Your task to perform on an android device: change the clock display to analog Image 0: 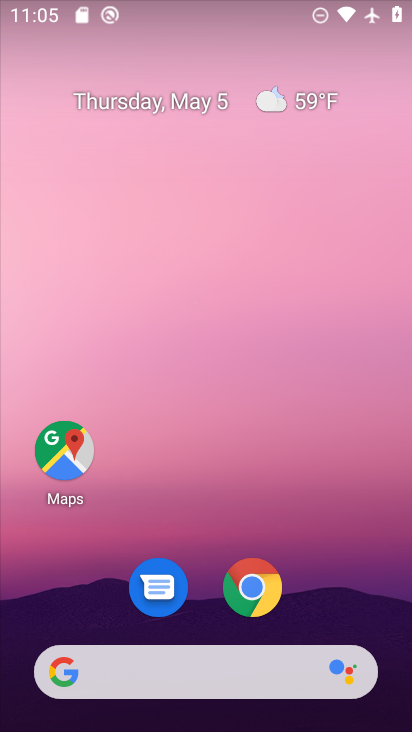
Step 0: drag from (349, 593) to (226, 3)
Your task to perform on an android device: change the clock display to analog Image 1: 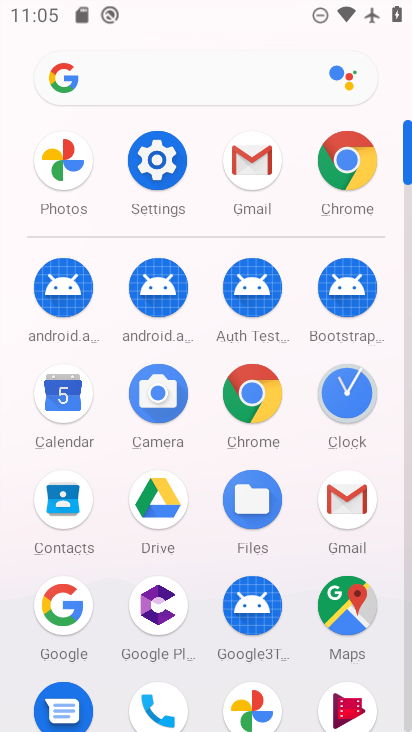
Step 1: click (343, 386)
Your task to perform on an android device: change the clock display to analog Image 2: 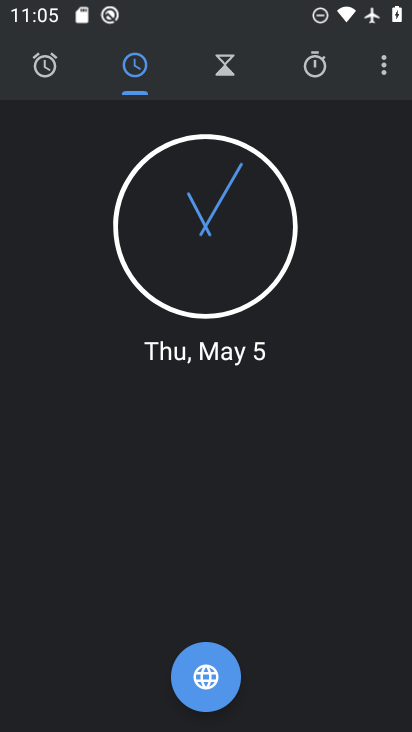
Step 2: click (383, 69)
Your task to perform on an android device: change the clock display to analog Image 3: 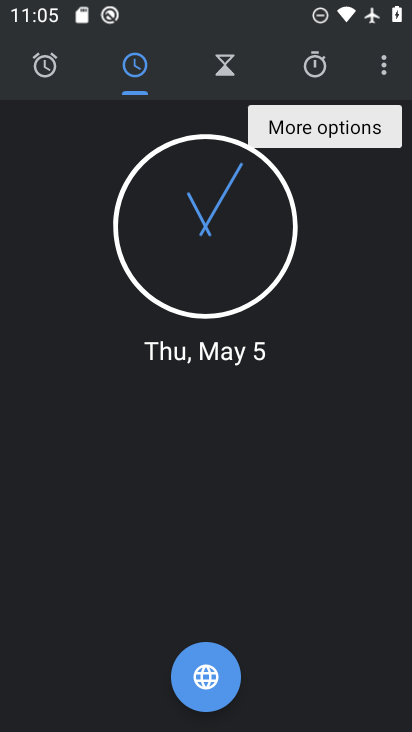
Step 3: click (380, 64)
Your task to perform on an android device: change the clock display to analog Image 4: 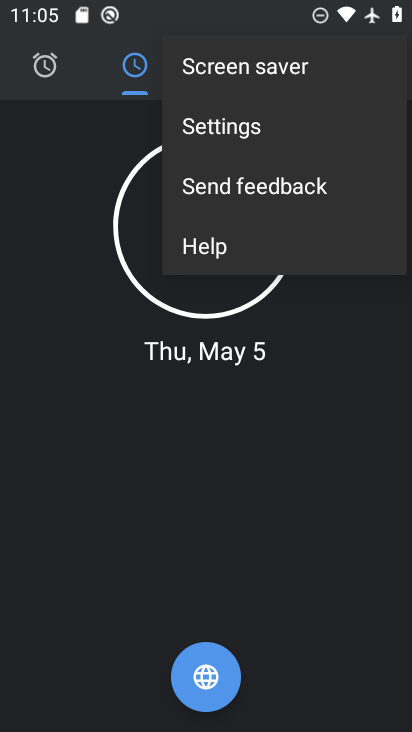
Step 4: click (273, 124)
Your task to perform on an android device: change the clock display to analog Image 5: 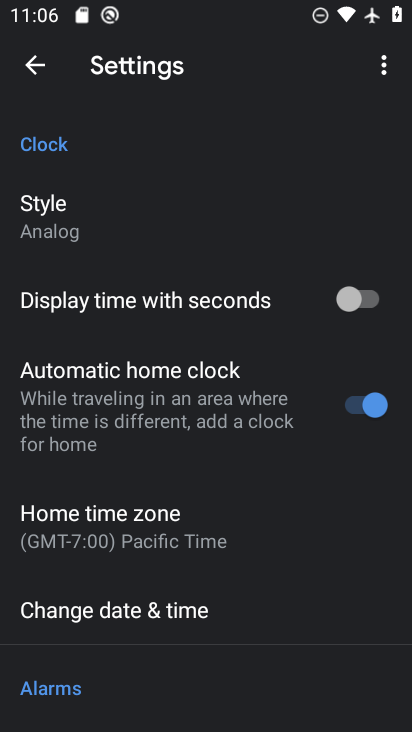
Step 5: task complete